Your task to perform on an android device: Search for the best websites on the internet Image 0: 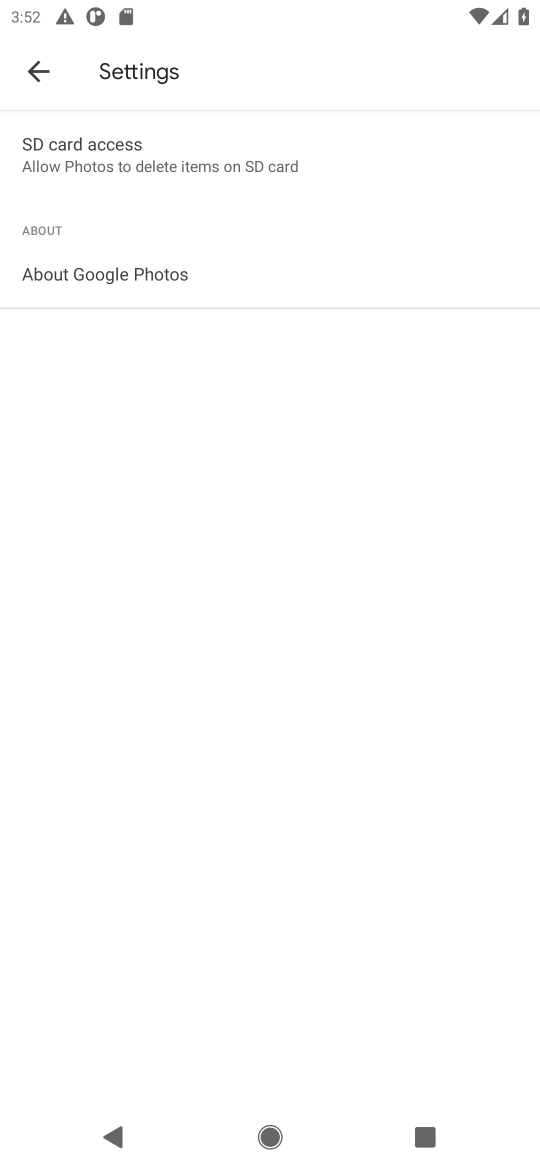
Step 0: press home button
Your task to perform on an android device: Search for the best websites on the internet Image 1: 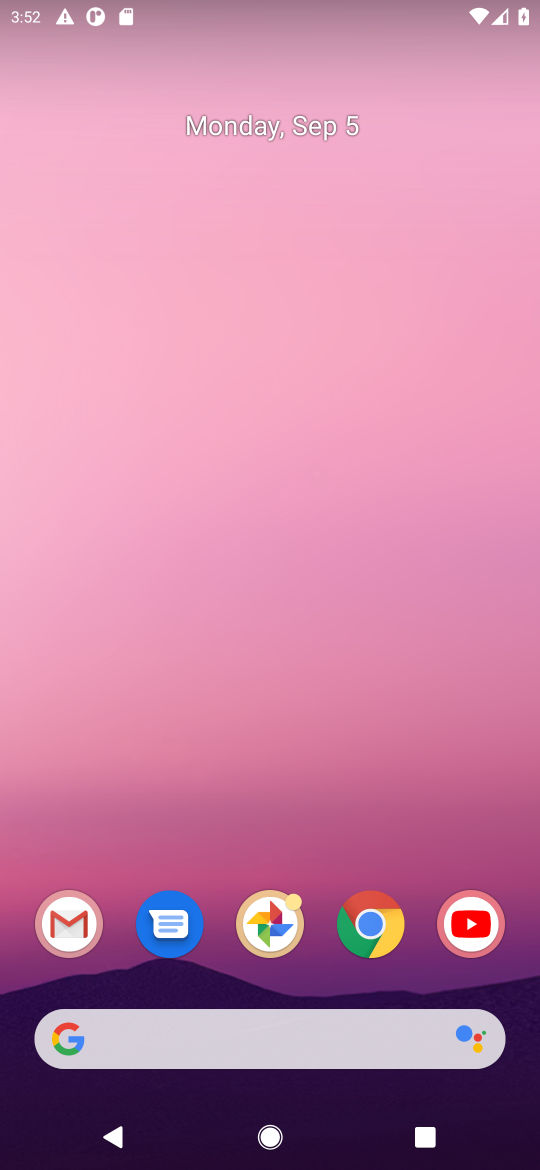
Step 1: click (365, 947)
Your task to perform on an android device: Search for the best websites on the internet Image 2: 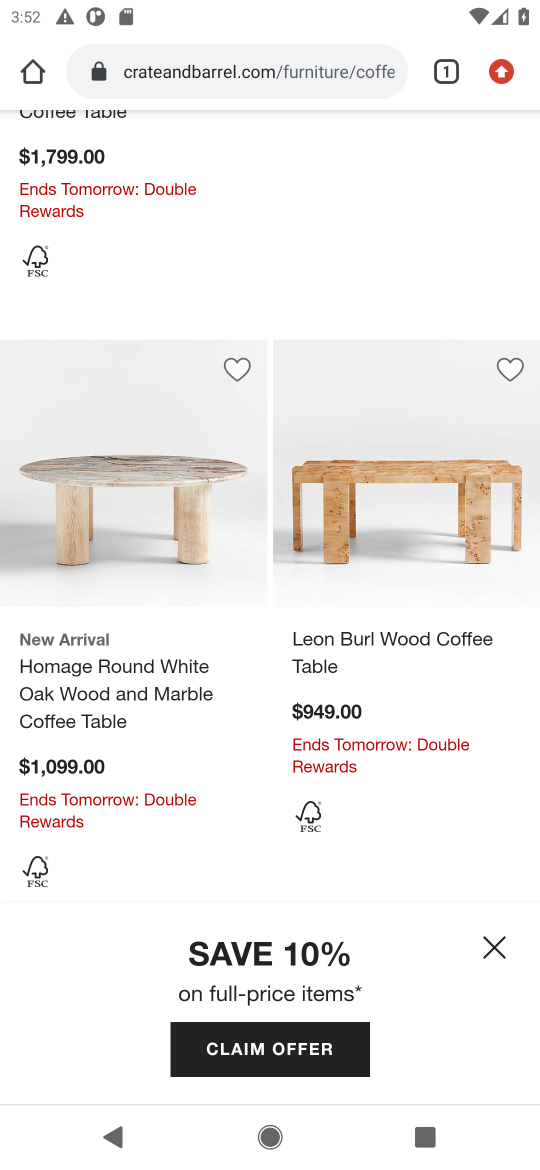
Step 2: click (278, 57)
Your task to perform on an android device: Search for the best websites on the internet Image 3: 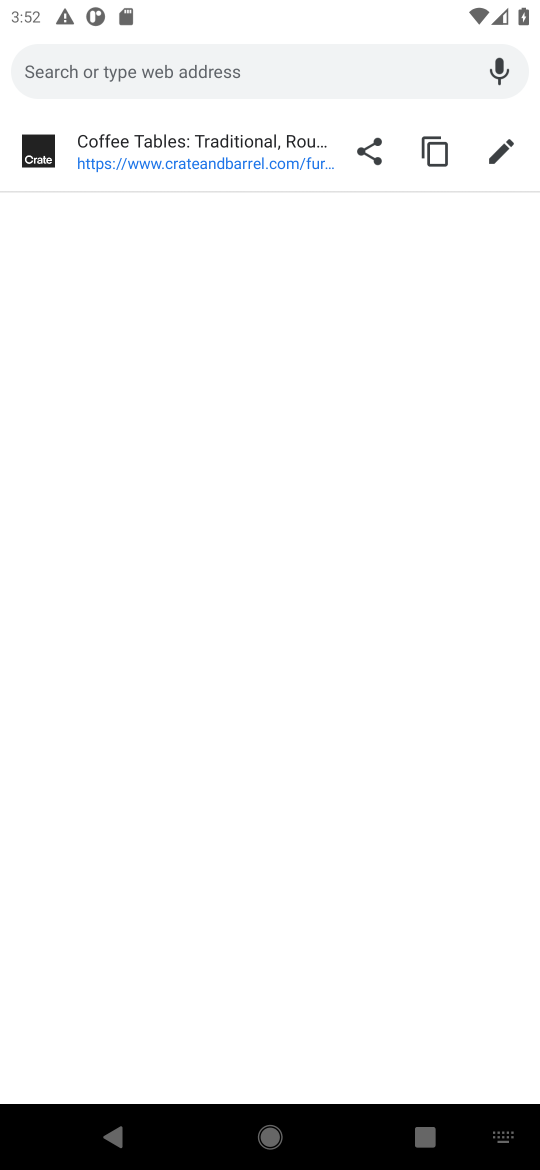
Step 3: type "best website on the internet "
Your task to perform on an android device: Search for the best websites on the internet Image 4: 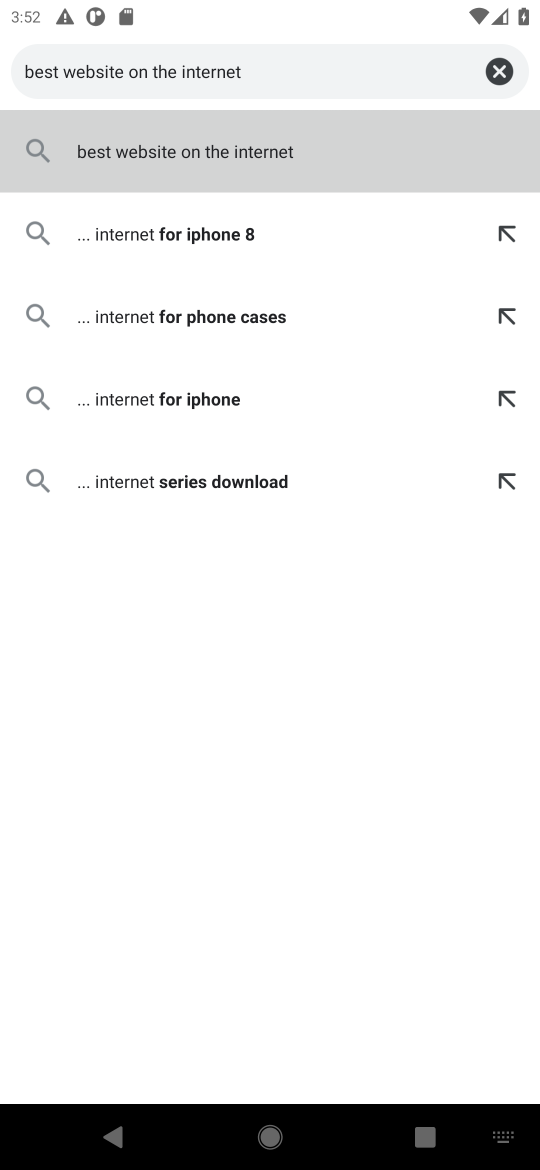
Step 4: click (164, 153)
Your task to perform on an android device: Search for the best websites on the internet Image 5: 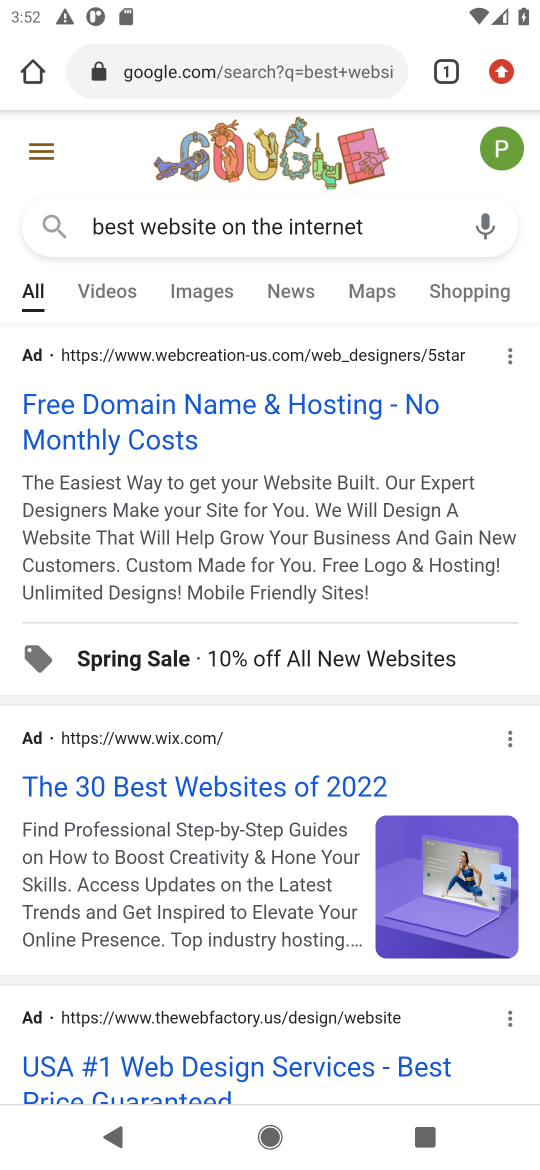
Step 5: click (139, 804)
Your task to perform on an android device: Search for the best websites on the internet Image 6: 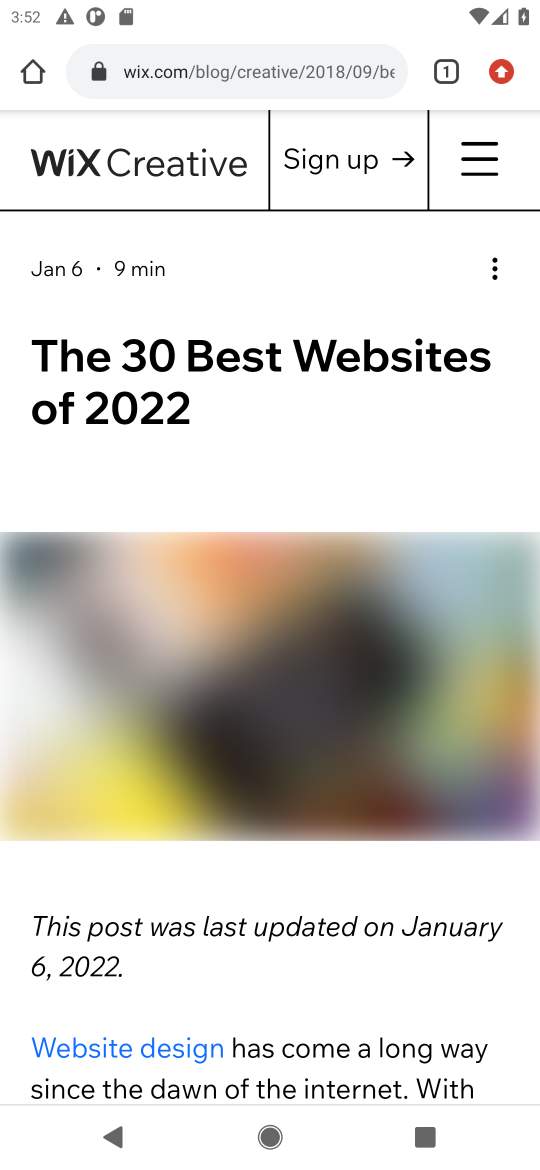
Step 6: task complete